Your task to perform on an android device: Open internet settings Image 0: 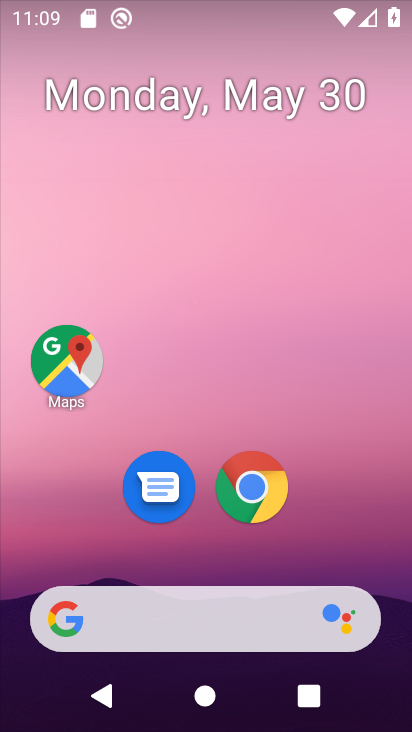
Step 0: drag from (348, 502) to (230, 107)
Your task to perform on an android device: Open internet settings Image 1: 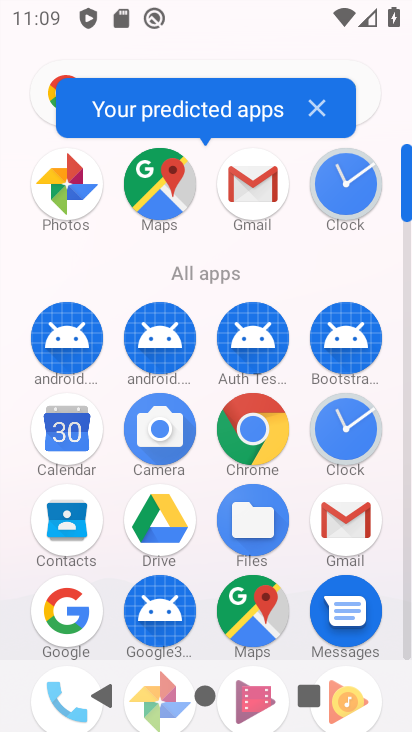
Step 1: drag from (210, 582) to (157, 247)
Your task to perform on an android device: Open internet settings Image 2: 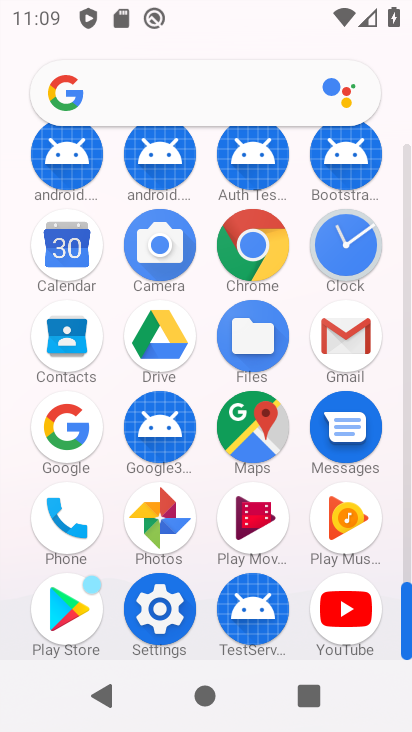
Step 2: click (166, 609)
Your task to perform on an android device: Open internet settings Image 3: 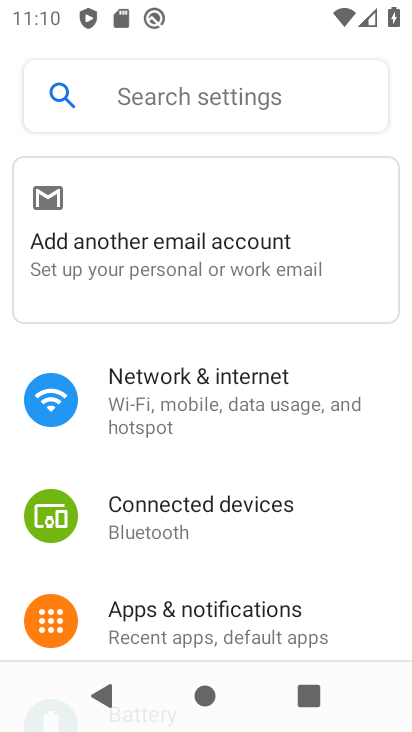
Step 3: click (176, 380)
Your task to perform on an android device: Open internet settings Image 4: 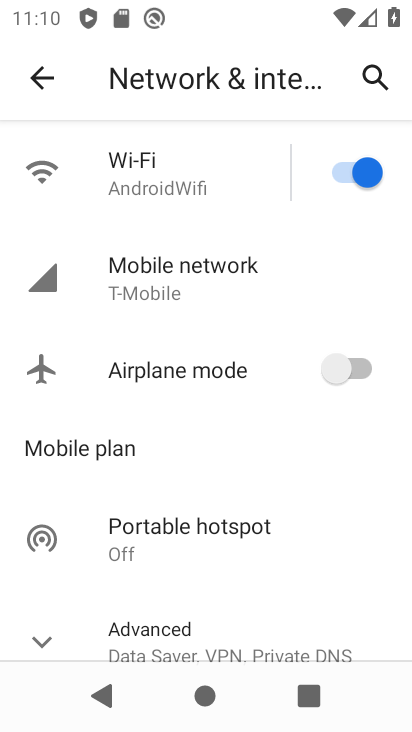
Step 4: task complete